Your task to perform on an android device: open chrome and create a bookmark for the current page Image 0: 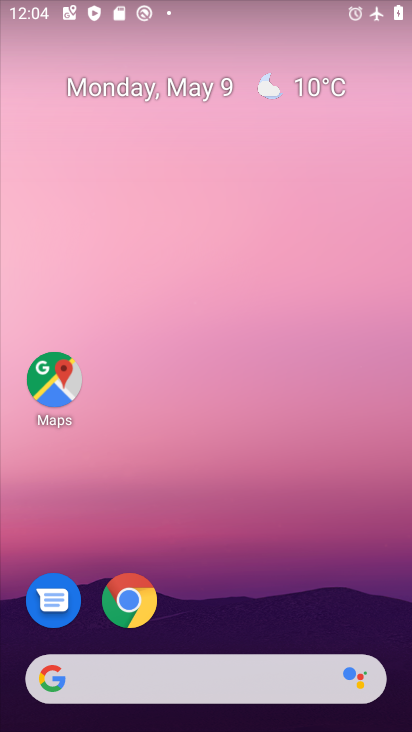
Step 0: click (128, 601)
Your task to perform on an android device: open chrome and create a bookmark for the current page Image 1: 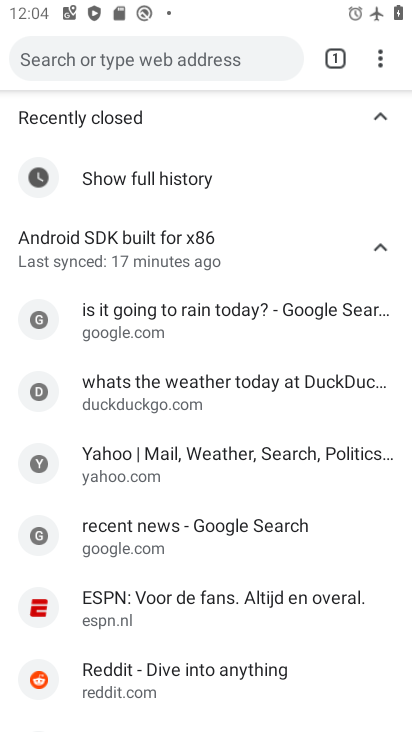
Step 1: click (380, 62)
Your task to perform on an android device: open chrome and create a bookmark for the current page Image 2: 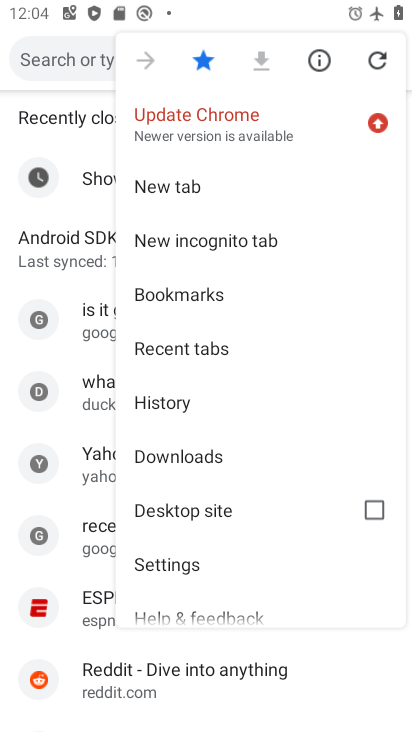
Step 2: task complete